Your task to perform on an android device: change notification settings in the gmail app Image 0: 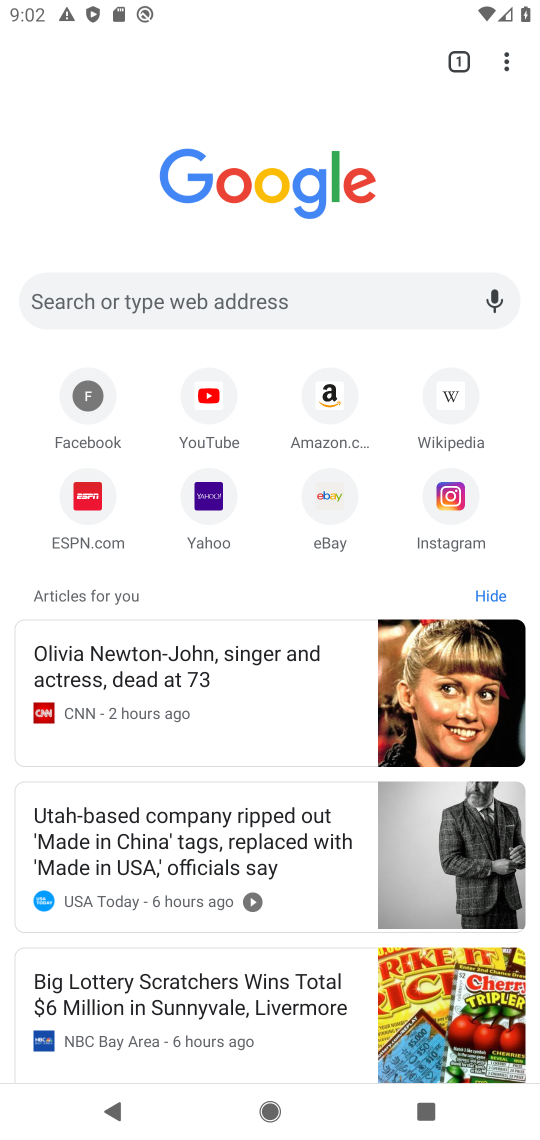
Step 0: press home button
Your task to perform on an android device: change notification settings in the gmail app Image 1: 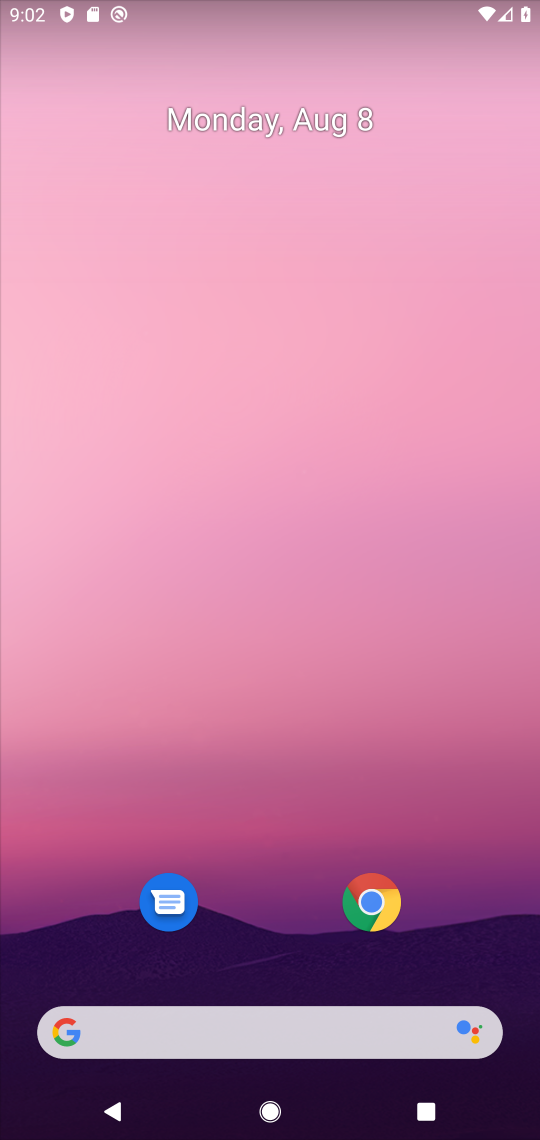
Step 1: drag from (313, 995) to (311, 362)
Your task to perform on an android device: change notification settings in the gmail app Image 2: 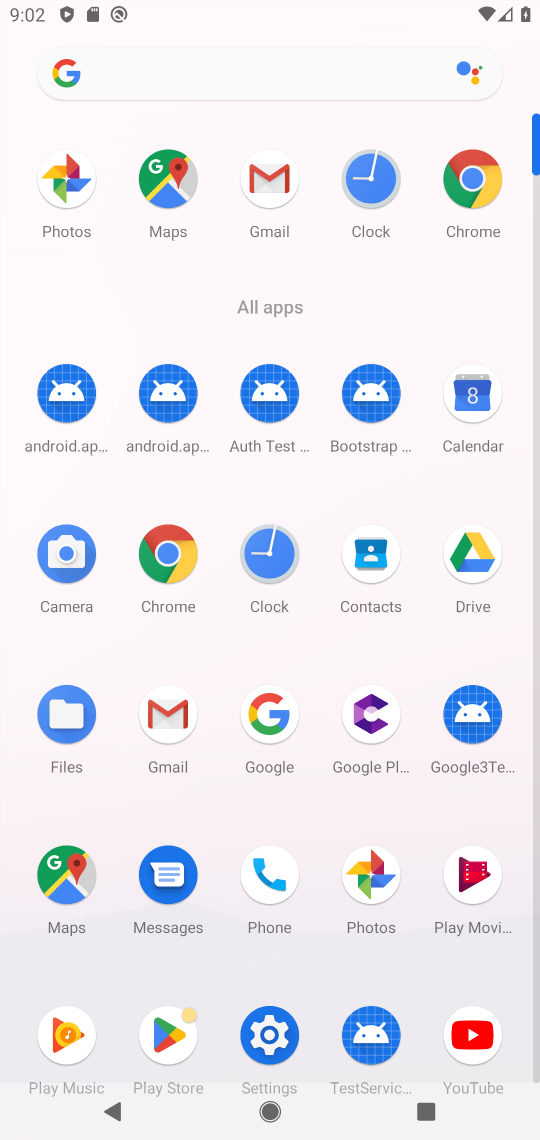
Step 2: click (186, 721)
Your task to perform on an android device: change notification settings in the gmail app Image 3: 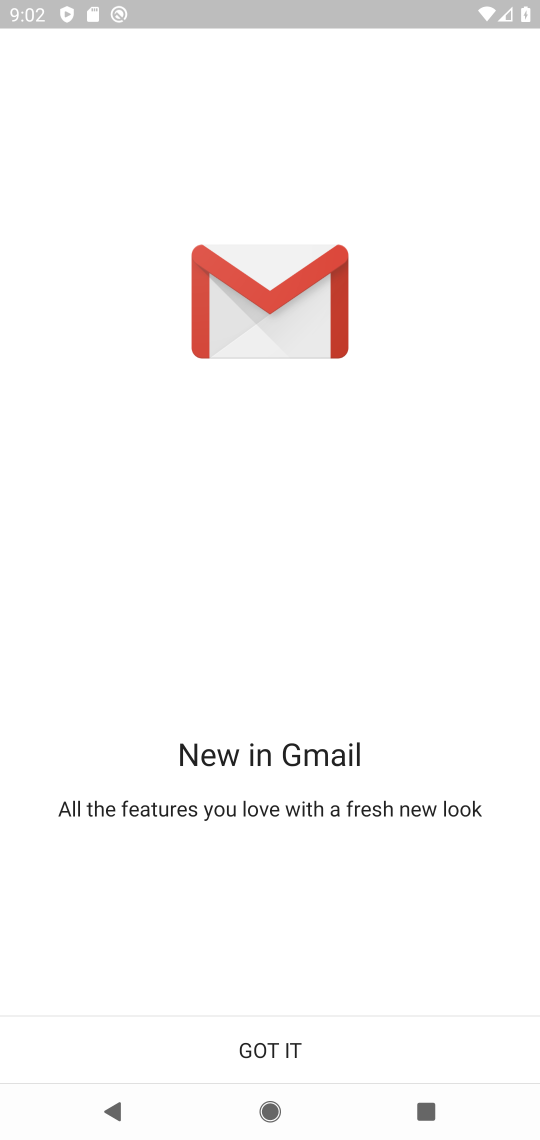
Step 3: click (303, 1032)
Your task to perform on an android device: change notification settings in the gmail app Image 4: 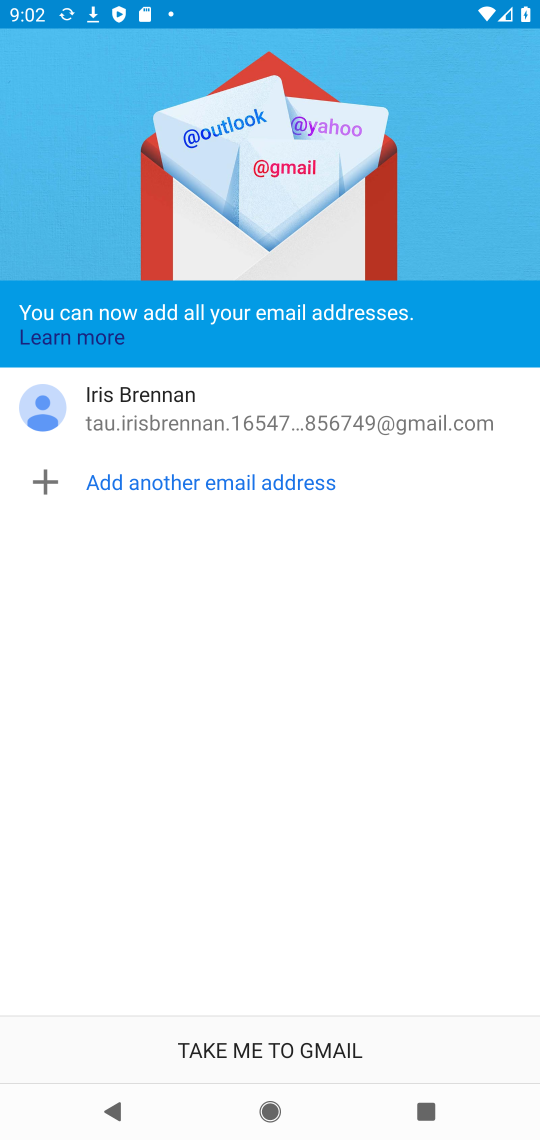
Step 4: click (266, 1044)
Your task to perform on an android device: change notification settings in the gmail app Image 5: 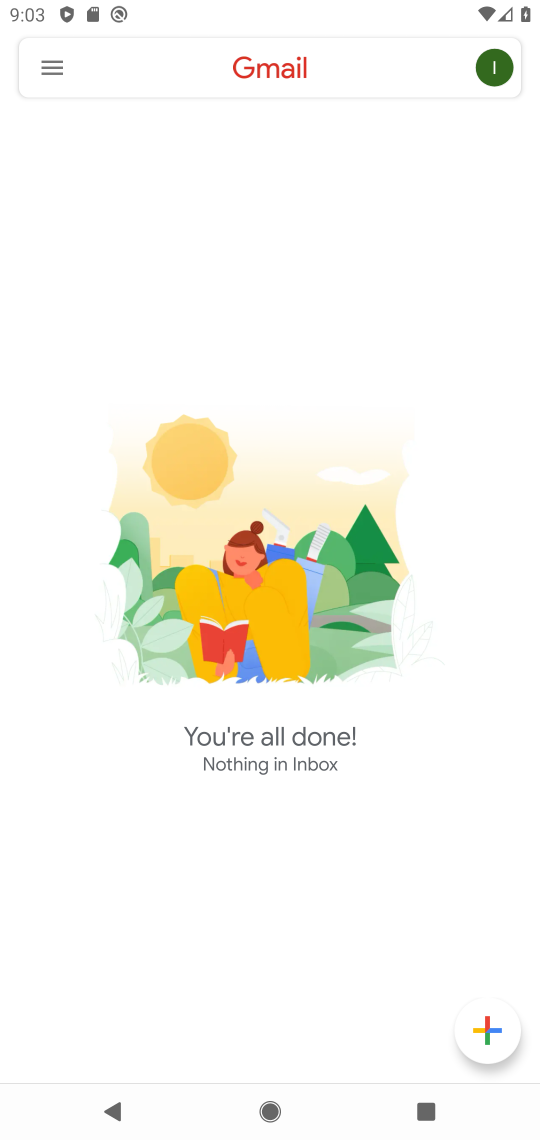
Step 5: click (47, 57)
Your task to perform on an android device: change notification settings in the gmail app Image 6: 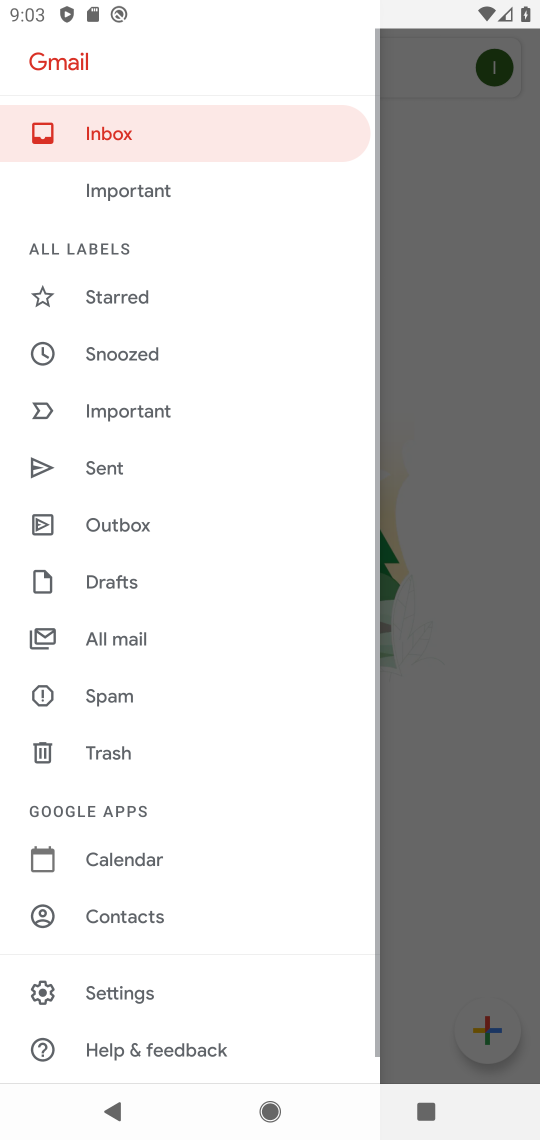
Step 6: click (104, 304)
Your task to perform on an android device: change notification settings in the gmail app Image 7: 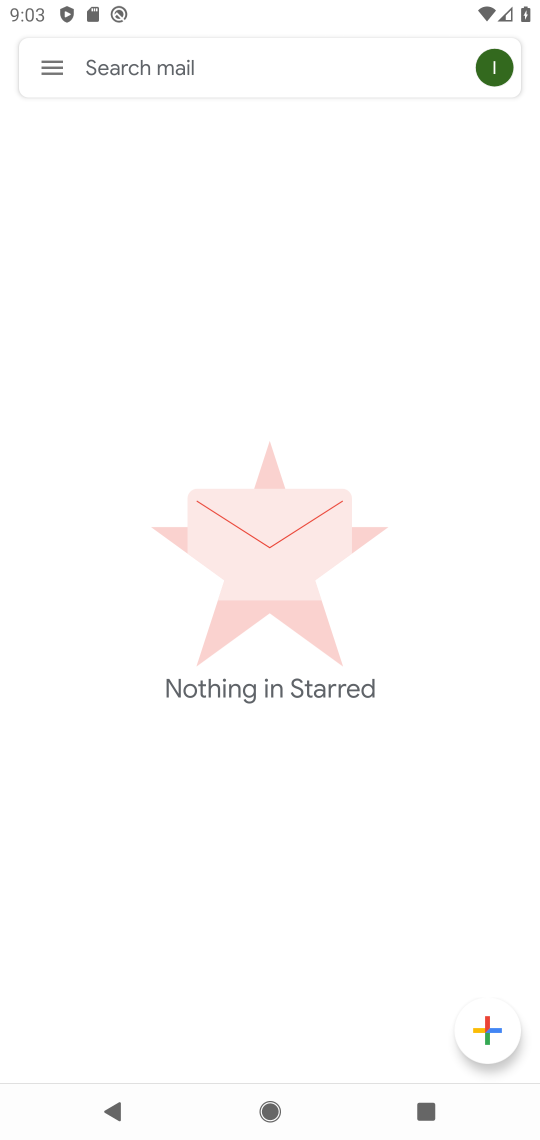
Step 7: click (56, 67)
Your task to perform on an android device: change notification settings in the gmail app Image 8: 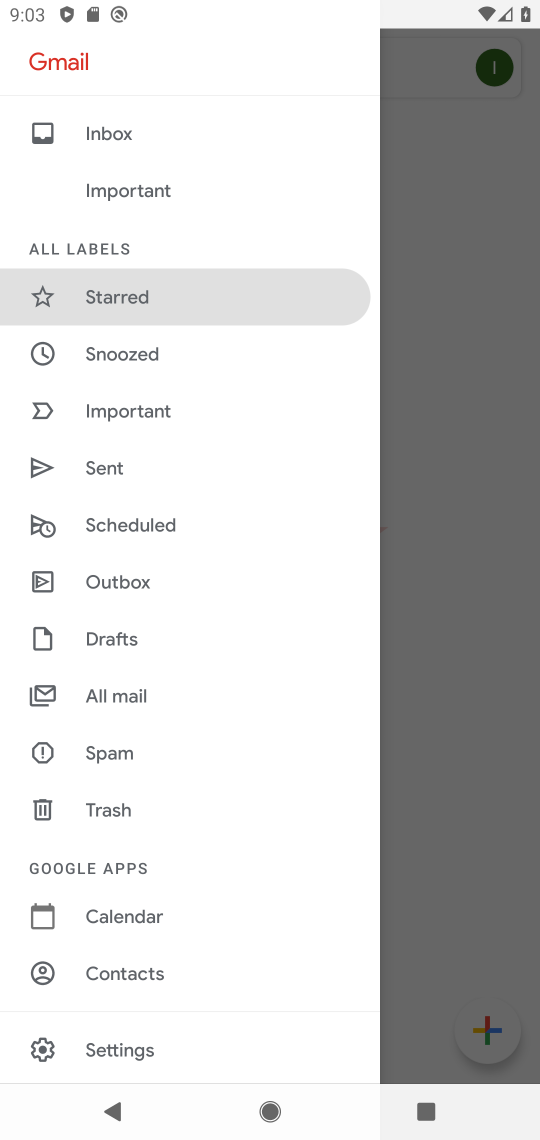
Step 8: click (154, 1039)
Your task to perform on an android device: change notification settings in the gmail app Image 9: 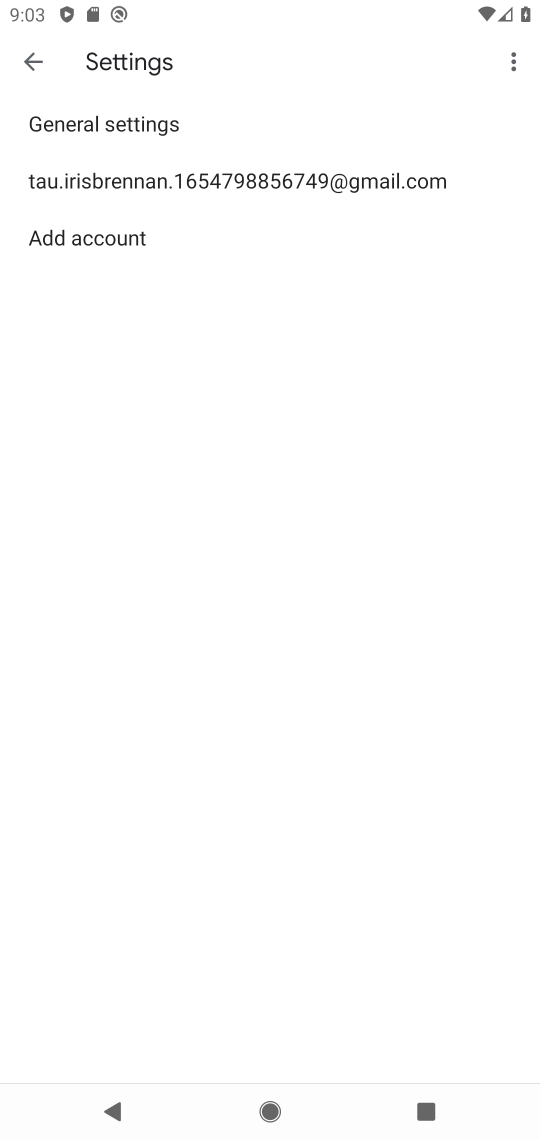
Step 9: click (66, 114)
Your task to perform on an android device: change notification settings in the gmail app Image 10: 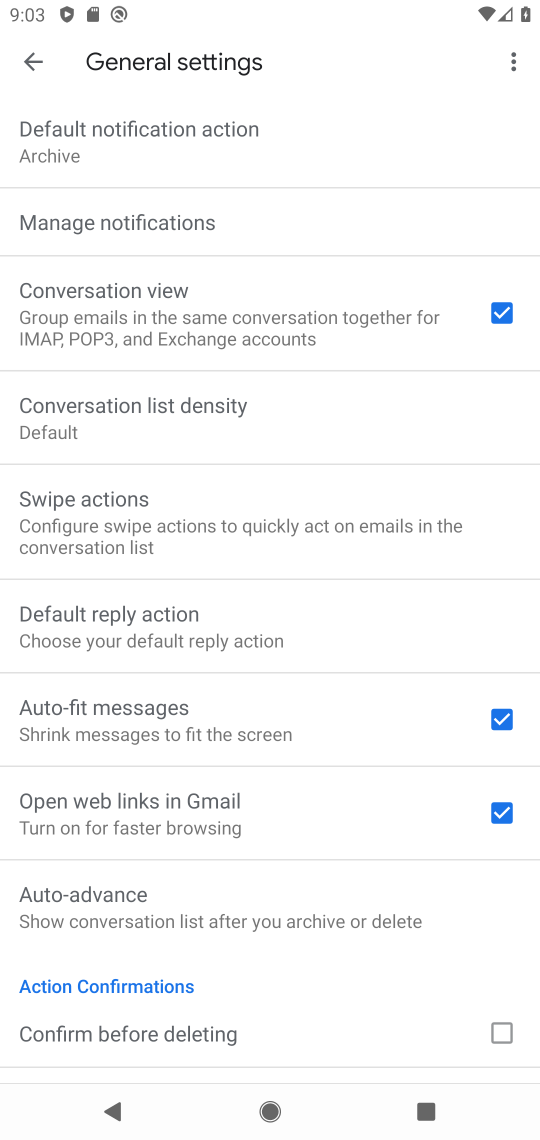
Step 10: click (164, 240)
Your task to perform on an android device: change notification settings in the gmail app Image 11: 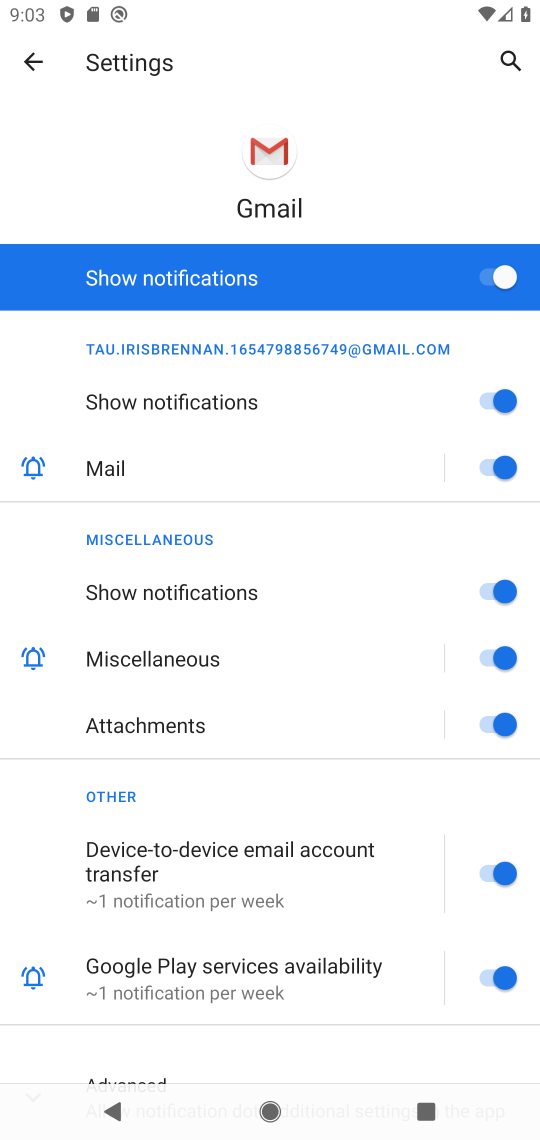
Step 11: click (503, 290)
Your task to perform on an android device: change notification settings in the gmail app Image 12: 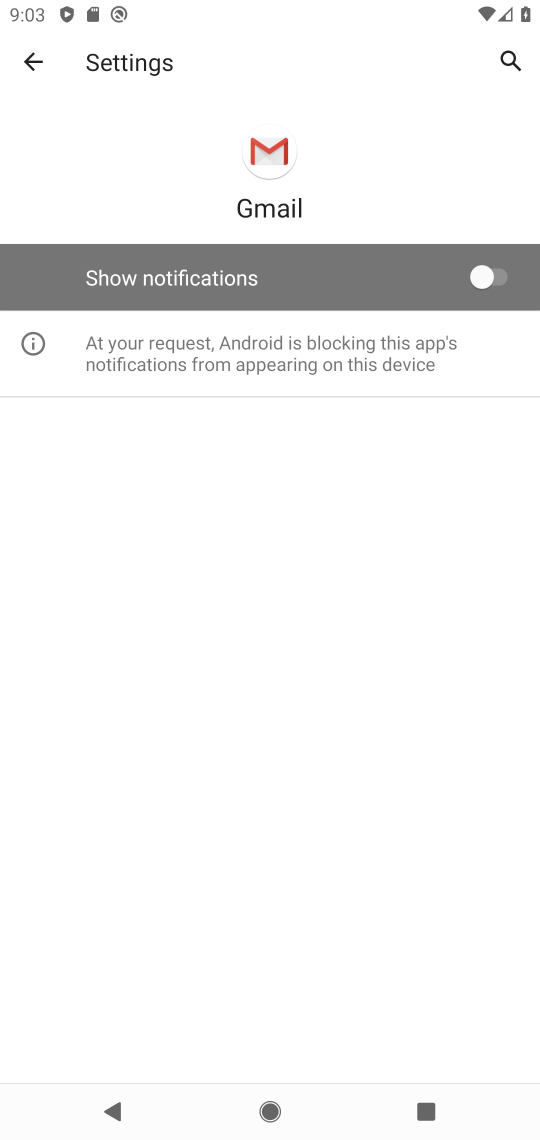
Step 12: task complete